Your task to perform on an android device: What's the weather going to be this weekend? Image 0: 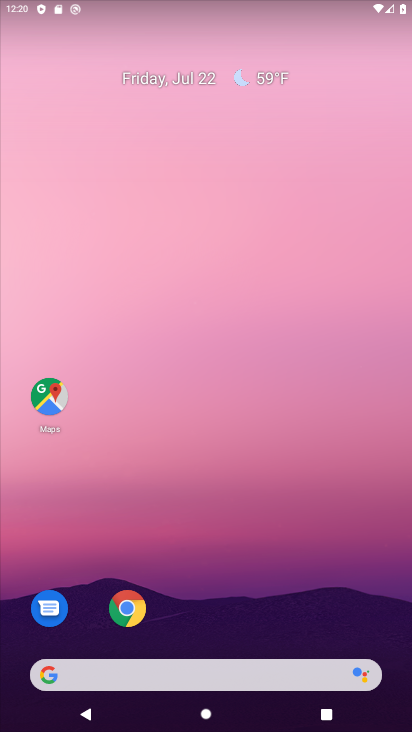
Step 0: click (189, 674)
Your task to perform on an android device: What's the weather going to be this weekend? Image 1: 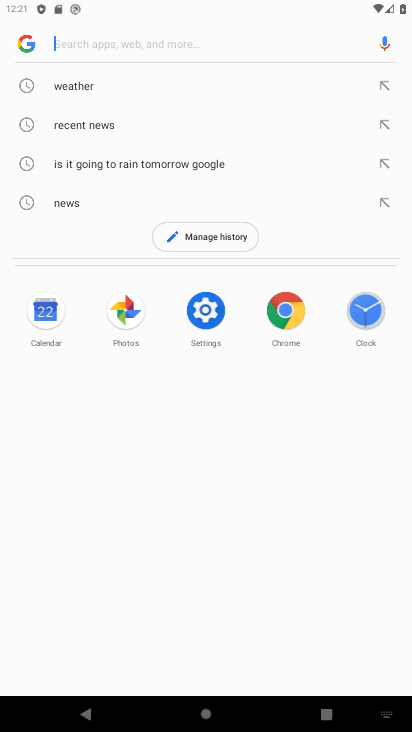
Step 1: type "weather"
Your task to perform on an android device: What's the weather going to be this weekend? Image 2: 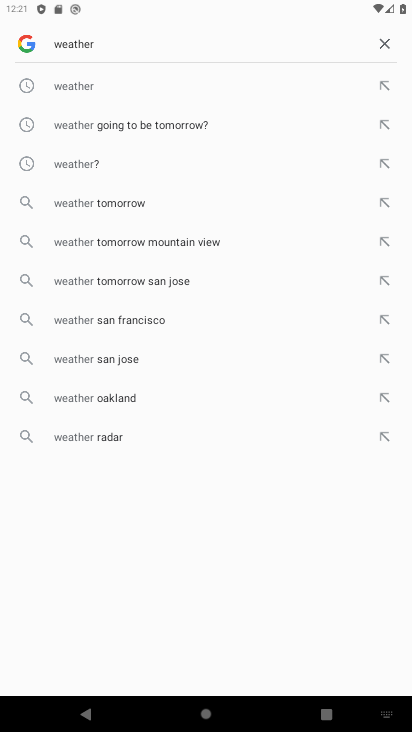
Step 2: click (87, 87)
Your task to perform on an android device: What's the weather going to be this weekend? Image 3: 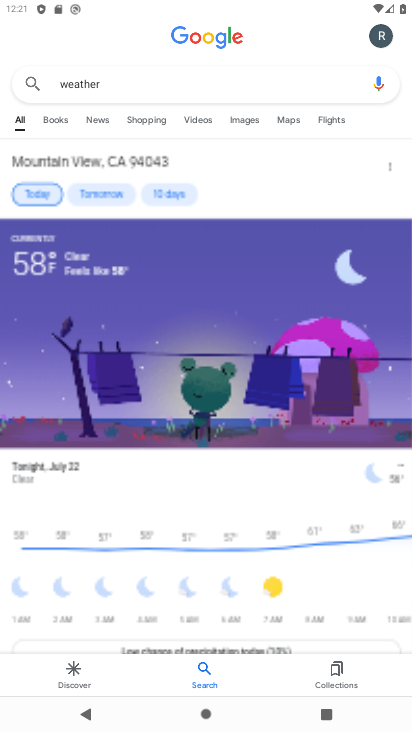
Step 3: click (174, 197)
Your task to perform on an android device: What's the weather going to be this weekend? Image 4: 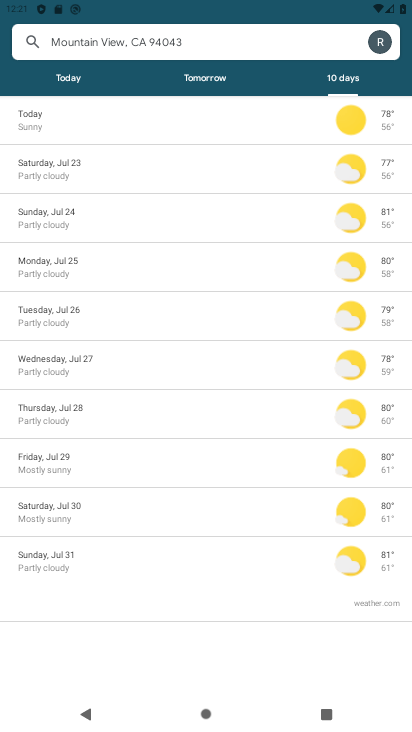
Step 4: task complete